Your task to perform on an android device: Search for a new desk on IKEA. Image 0: 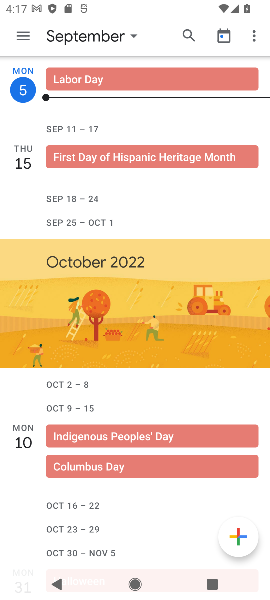
Step 0: press home button
Your task to perform on an android device: Search for a new desk on IKEA. Image 1: 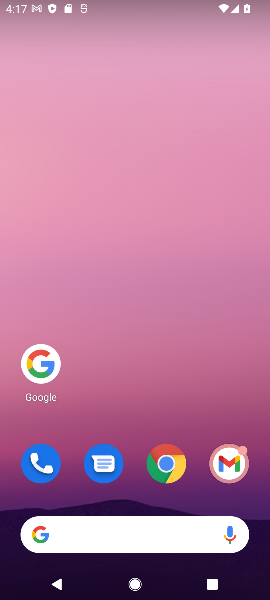
Step 1: click (36, 352)
Your task to perform on an android device: Search for a new desk on IKEA. Image 2: 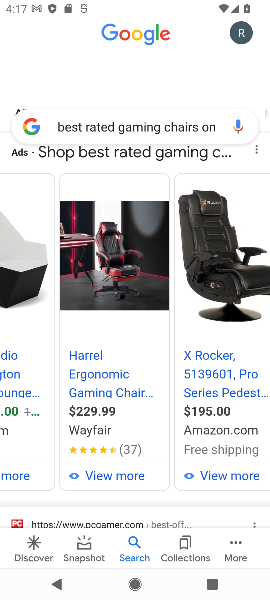
Step 2: click (190, 119)
Your task to perform on an android device: Search for a new desk on IKEA. Image 3: 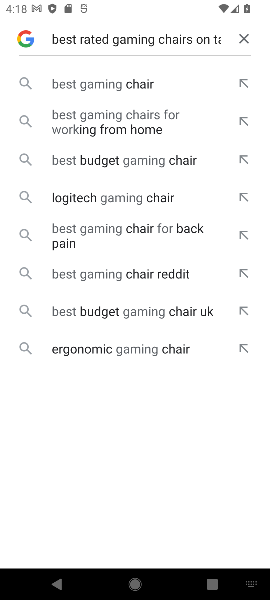
Step 3: click (248, 38)
Your task to perform on an android device: Search for a new desk on IKEA. Image 4: 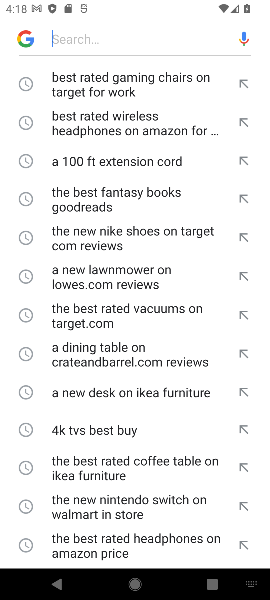
Step 4: click (91, 35)
Your task to perform on an android device: Search for a new desk on IKEA. Image 5: 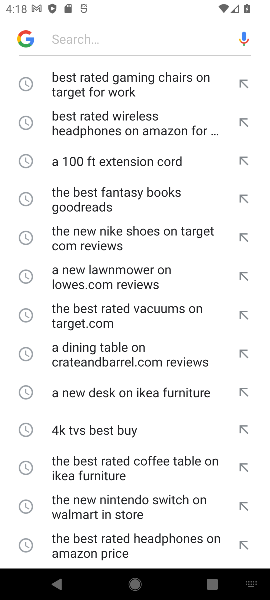
Step 5: type " a new desk on IKEA. "
Your task to perform on an android device: Search for a new desk on IKEA. Image 6: 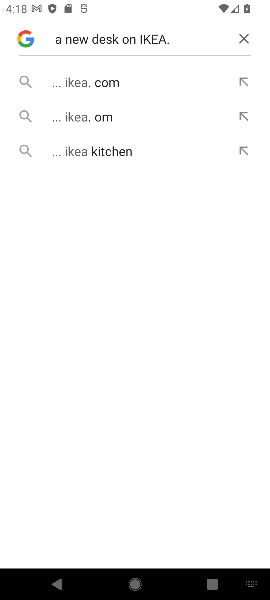
Step 6: click (107, 90)
Your task to perform on an android device: Search for a new desk on IKEA. Image 7: 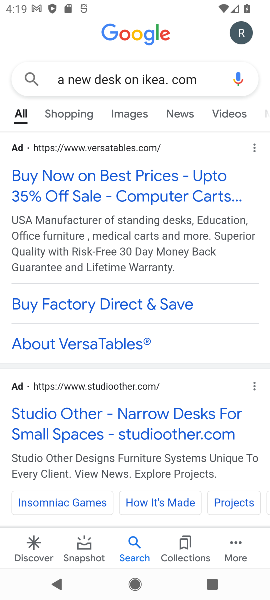
Step 7: drag from (143, 484) to (178, 166)
Your task to perform on an android device: Search for a new desk on IKEA. Image 8: 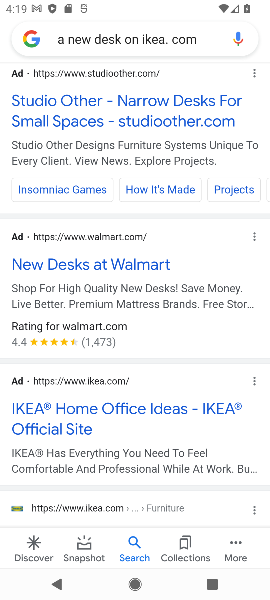
Step 8: click (74, 411)
Your task to perform on an android device: Search for a new desk on IKEA. Image 9: 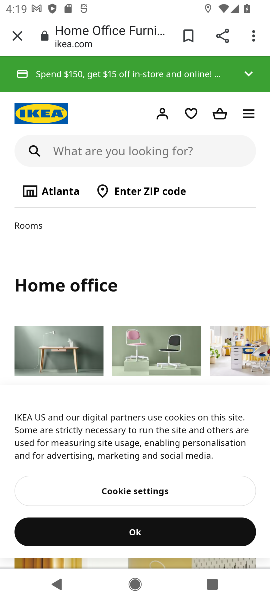
Step 9: task complete